Your task to perform on an android device: Search for pizza restaurants on Maps Image 0: 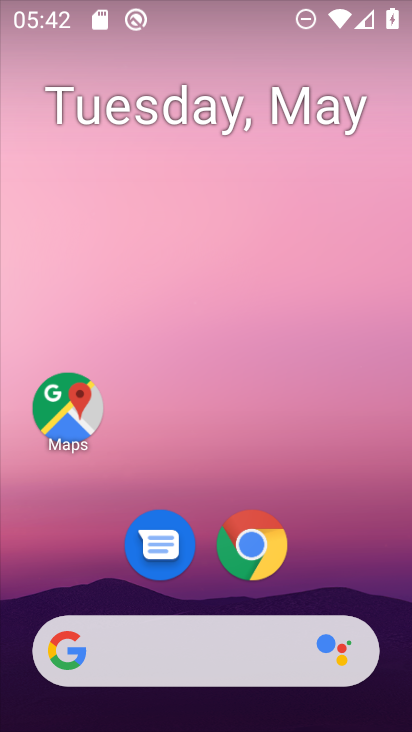
Step 0: drag from (322, 544) to (264, 49)
Your task to perform on an android device: Search for pizza restaurants on Maps Image 1: 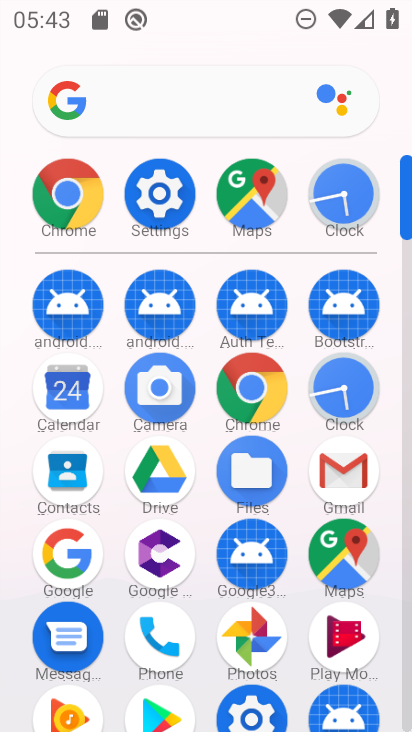
Step 1: click (327, 556)
Your task to perform on an android device: Search for pizza restaurants on Maps Image 2: 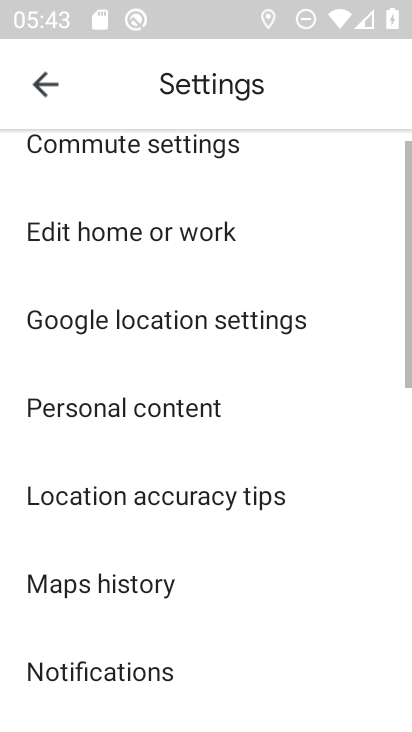
Step 2: click (31, 91)
Your task to perform on an android device: Search for pizza restaurants on Maps Image 3: 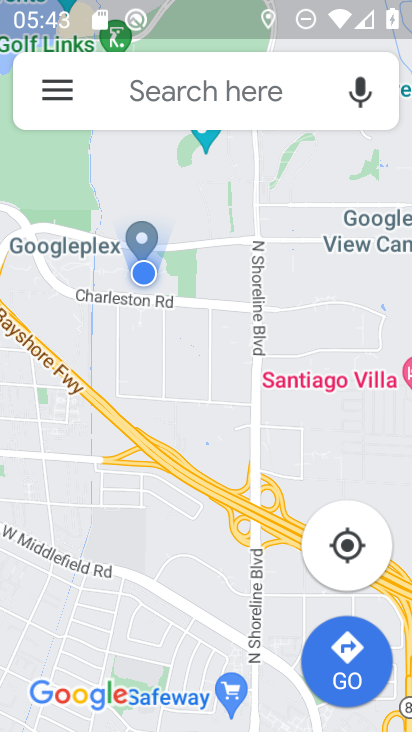
Step 3: click (127, 92)
Your task to perform on an android device: Search for pizza restaurants on Maps Image 4: 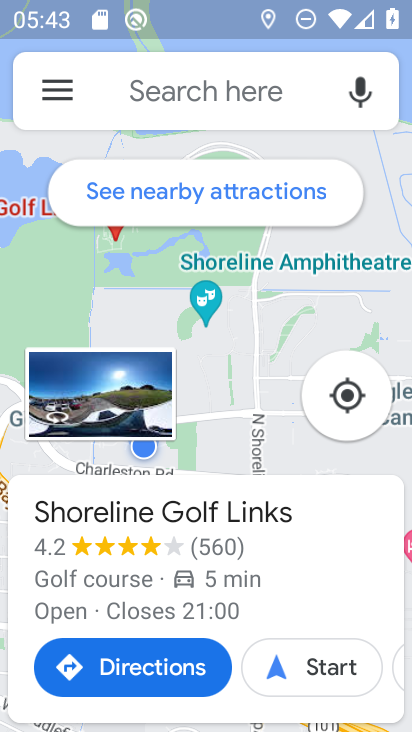
Step 4: click (108, 87)
Your task to perform on an android device: Search for pizza restaurants on Maps Image 5: 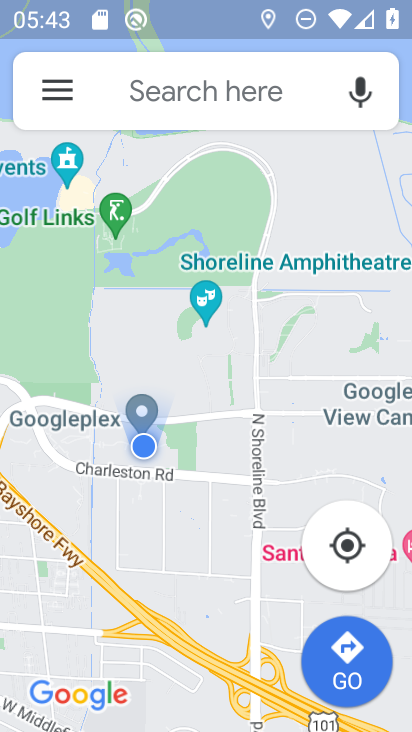
Step 5: click (279, 91)
Your task to perform on an android device: Search for pizza restaurants on Maps Image 6: 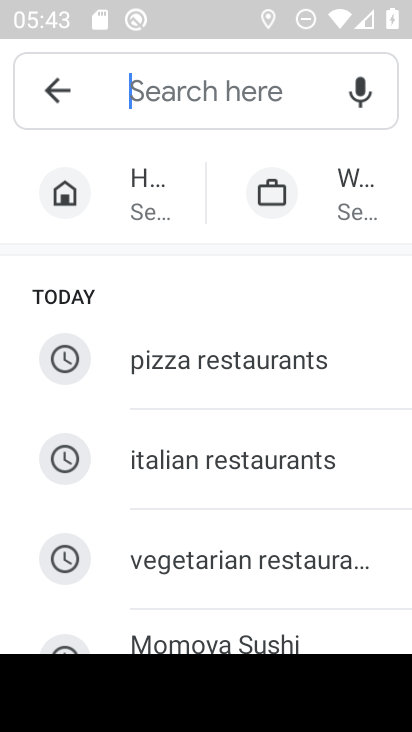
Step 6: click (256, 371)
Your task to perform on an android device: Search for pizza restaurants on Maps Image 7: 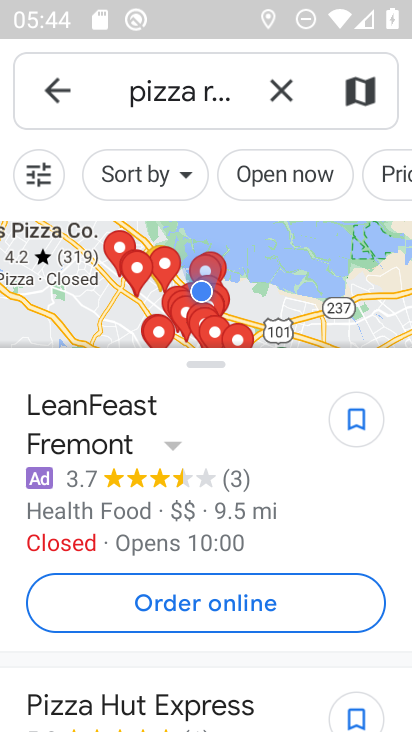
Step 7: task complete